Your task to perform on an android device: install app "Airtel Thanks" Image 0: 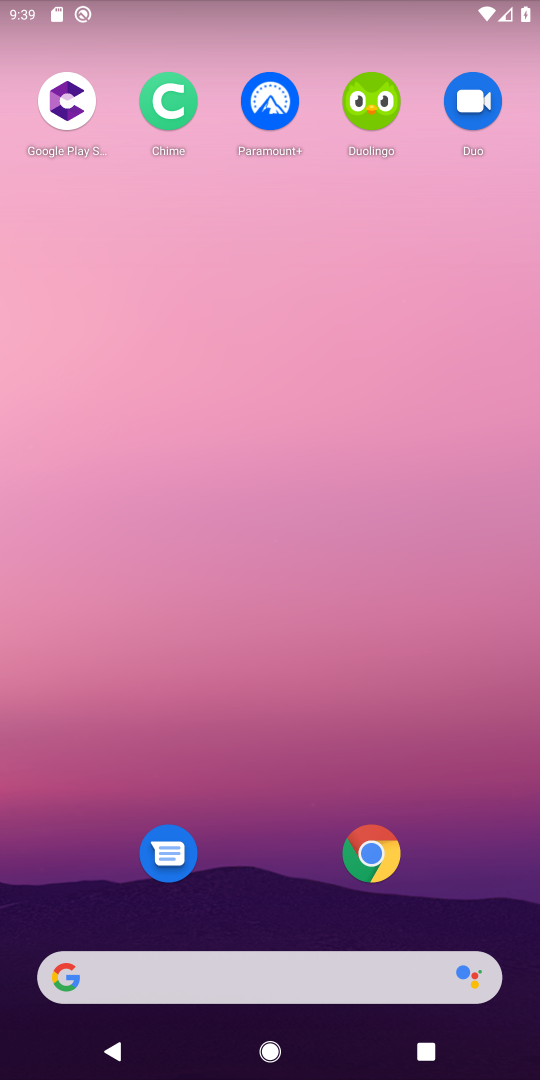
Step 0: drag from (283, 915) to (204, 142)
Your task to perform on an android device: install app "Airtel Thanks" Image 1: 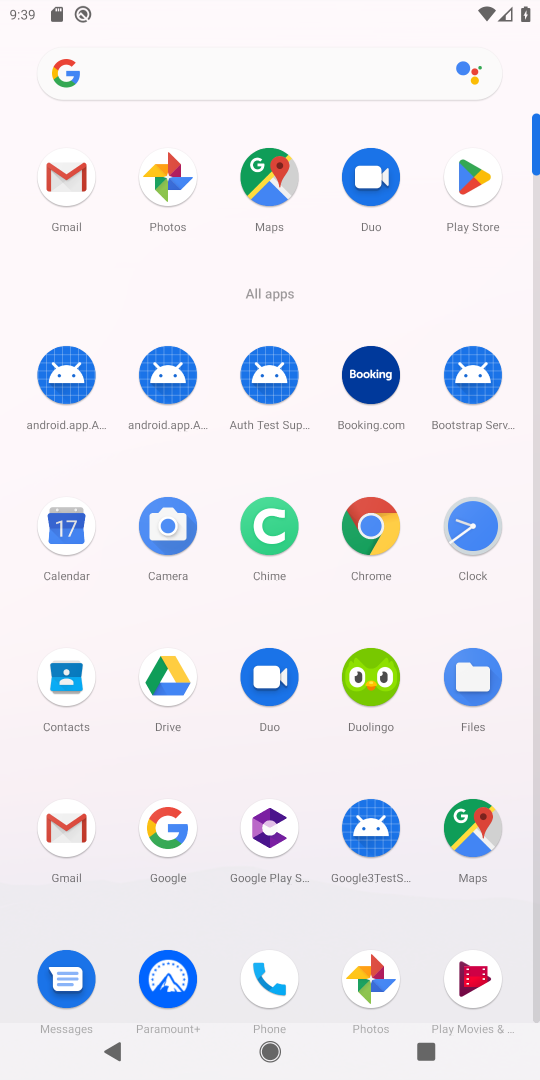
Step 1: click (482, 175)
Your task to perform on an android device: install app "Airtel Thanks" Image 2: 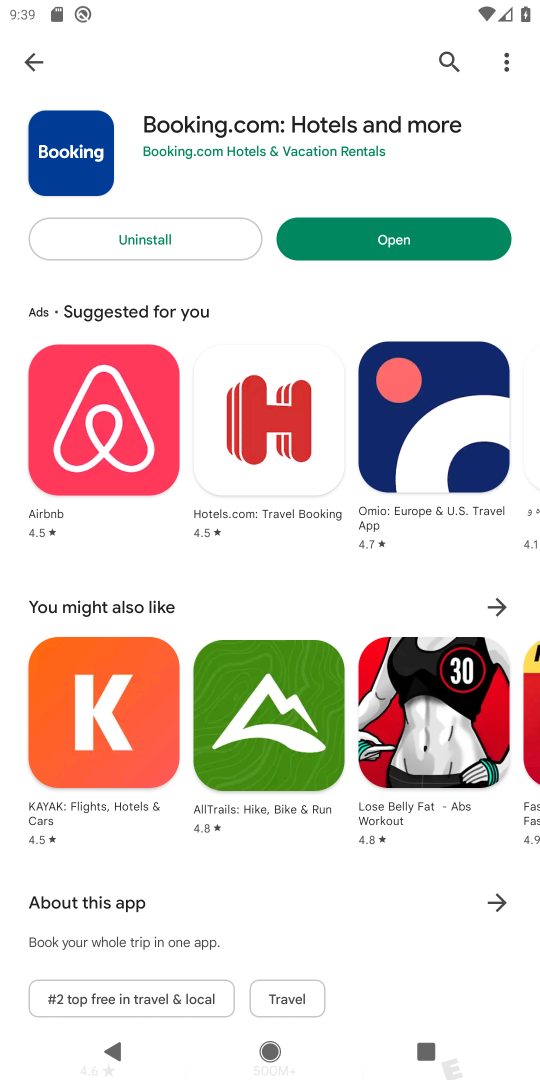
Step 2: click (449, 57)
Your task to perform on an android device: install app "Airtel Thanks" Image 3: 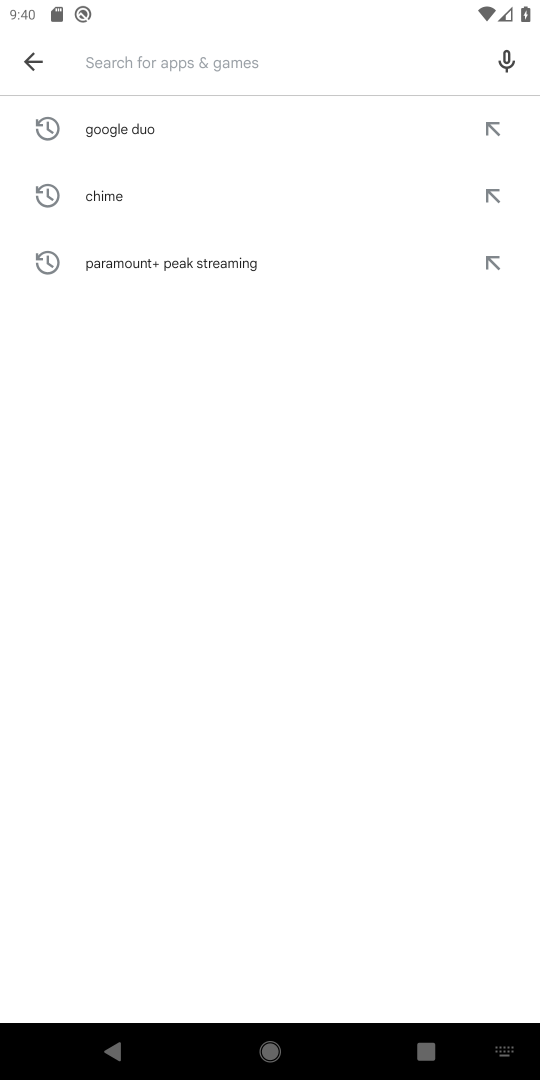
Step 3: type "Airtel Thanks"
Your task to perform on an android device: install app "Airtel Thanks" Image 4: 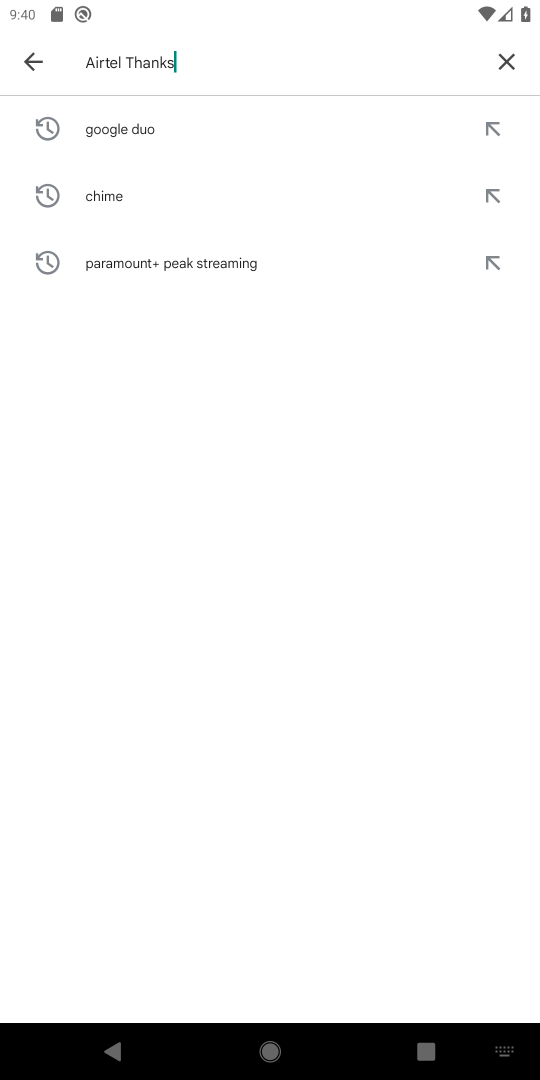
Step 4: type ""
Your task to perform on an android device: install app "Airtel Thanks" Image 5: 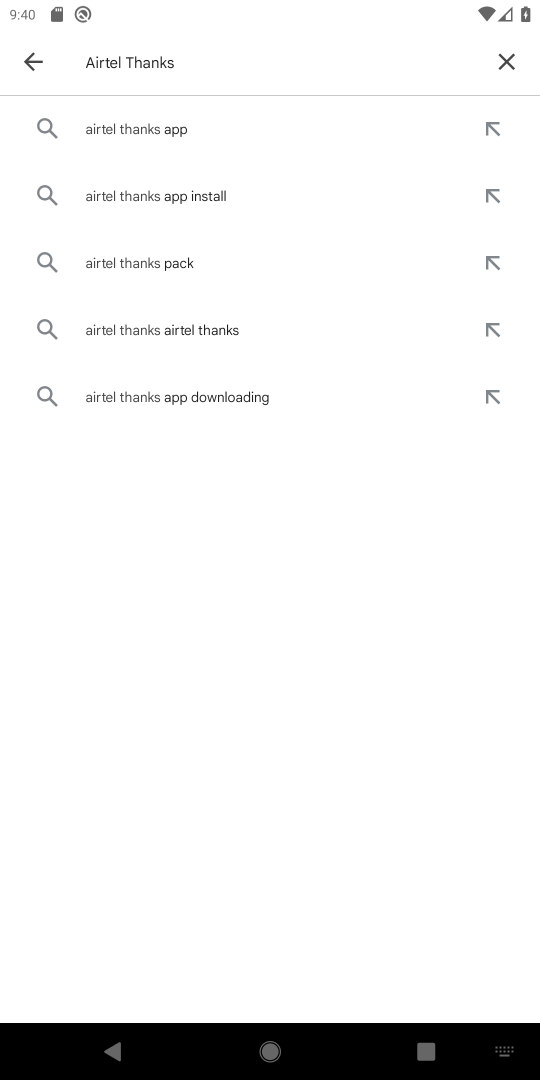
Step 5: click (113, 125)
Your task to perform on an android device: install app "Airtel Thanks" Image 6: 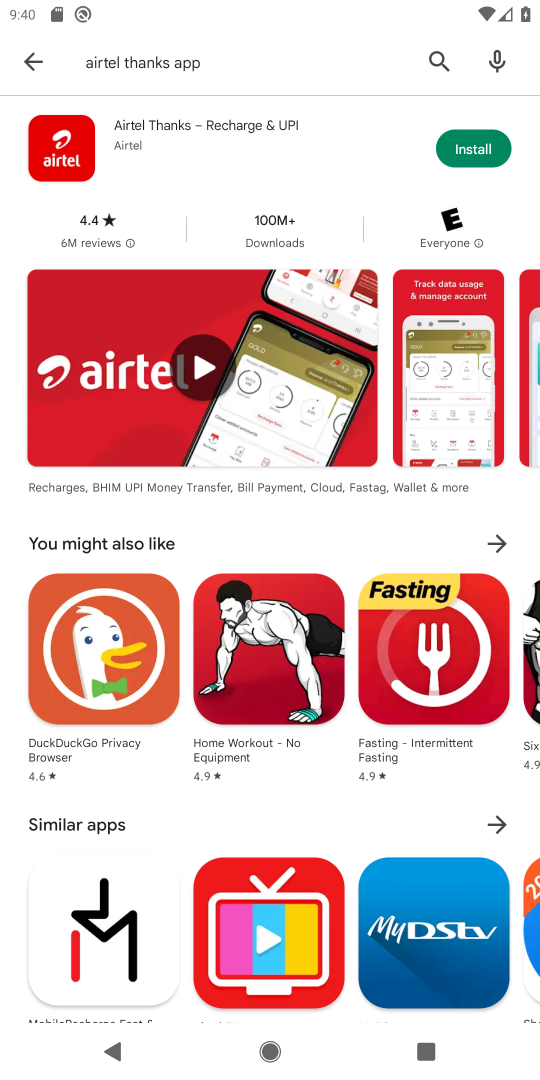
Step 6: click (474, 145)
Your task to perform on an android device: install app "Airtel Thanks" Image 7: 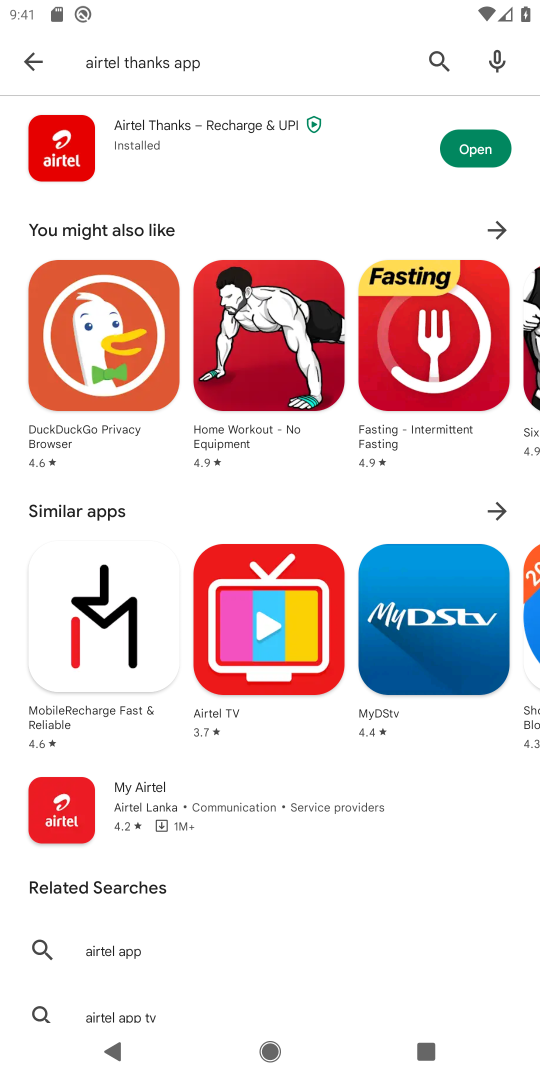
Step 7: click (466, 147)
Your task to perform on an android device: install app "Airtel Thanks" Image 8: 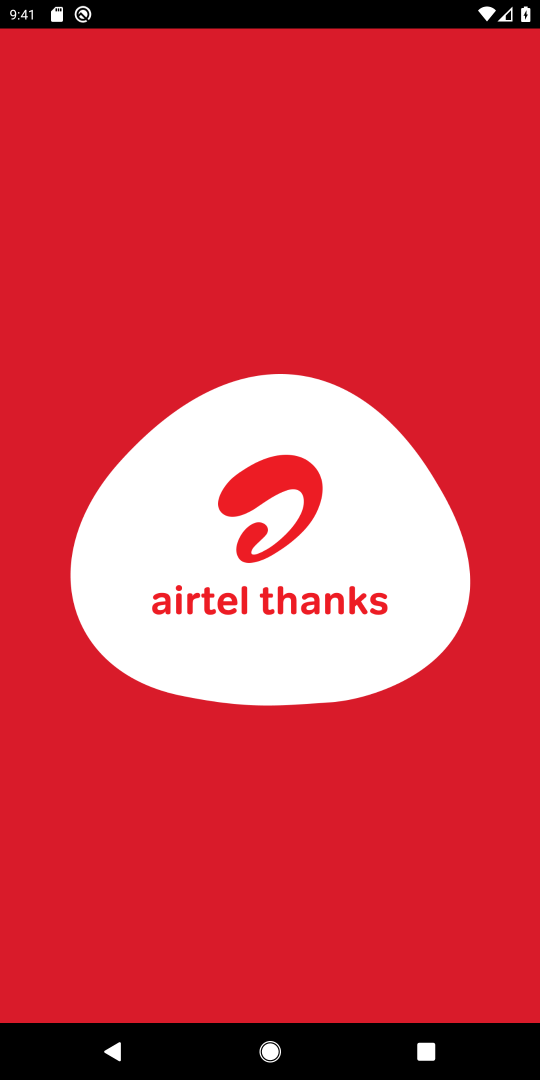
Step 8: task complete